Your task to perform on an android device: toggle improve location accuracy Image 0: 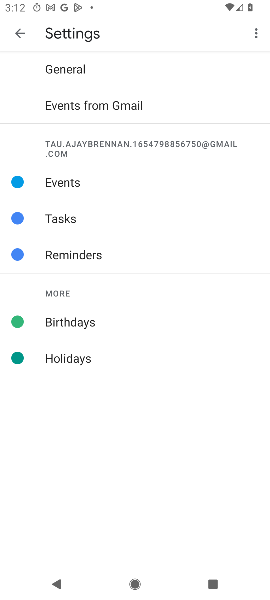
Step 0: press home button
Your task to perform on an android device: toggle improve location accuracy Image 1: 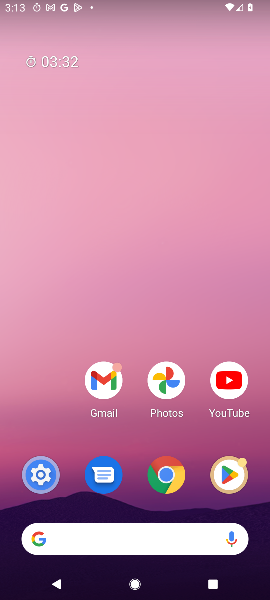
Step 1: drag from (58, 437) to (53, 139)
Your task to perform on an android device: toggle improve location accuracy Image 2: 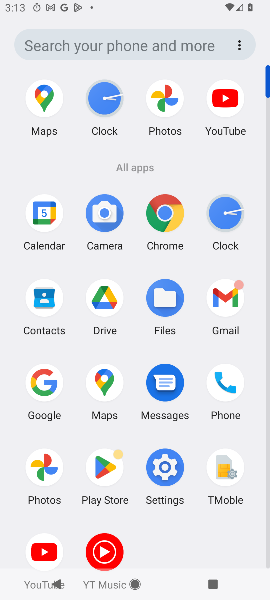
Step 2: click (168, 483)
Your task to perform on an android device: toggle improve location accuracy Image 3: 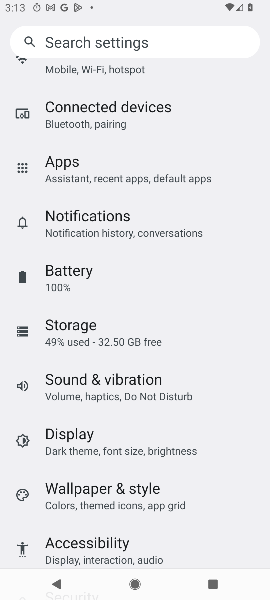
Step 3: drag from (217, 453) to (225, 392)
Your task to perform on an android device: toggle improve location accuracy Image 4: 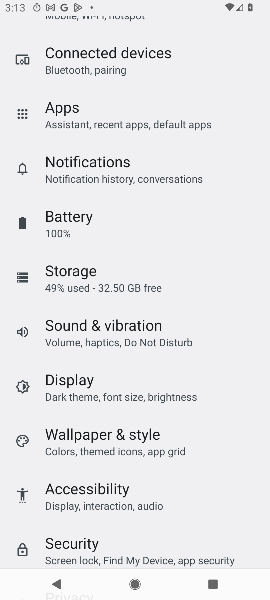
Step 4: drag from (227, 454) to (226, 362)
Your task to perform on an android device: toggle improve location accuracy Image 5: 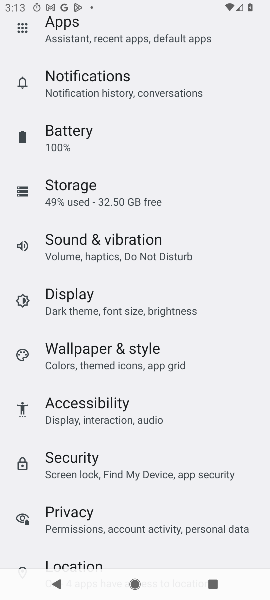
Step 5: drag from (213, 427) to (219, 355)
Your task to perform on an android device: toggle improve location accuracy Image 6: 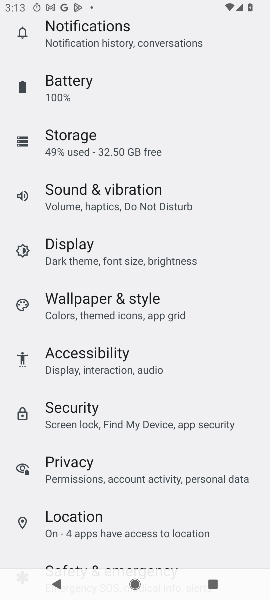
Step 6: drag from (201, 431) to (198, 364)
Your task to perform on an android device: toggle improve location accuracy Image 7: 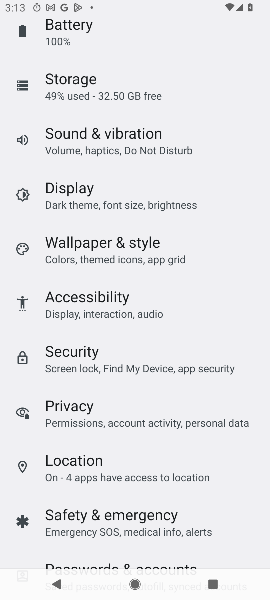
Step 7: drag from (215, 495) to (220, 392)
Your task to perform on an android device: toggle improve location accuracy Image 8: 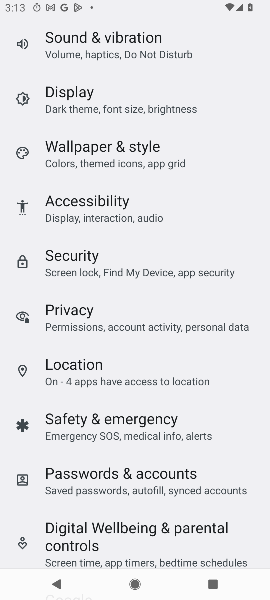
Step 8: click (188, 380)
Your task to perform on an android device: toggle improve location accuracy Image 9: 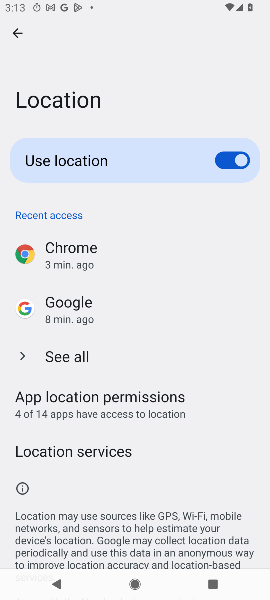
Step 9: click (146, 454)
Your task to perform on an android device: toggle improve location accuracy Image 10: 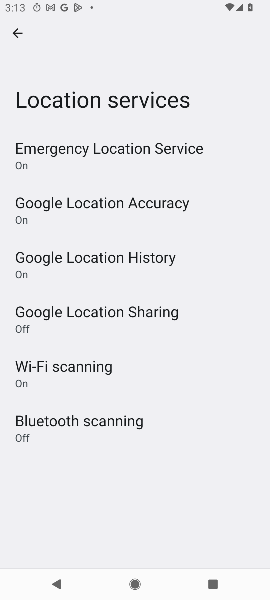
Step 10: click (154, 206)
Your task to perform on an android device: toggle improve location accuracy Image 11: 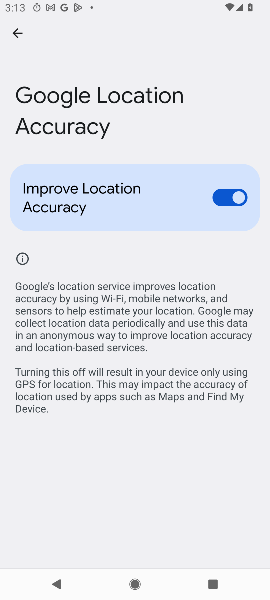
Step 11: click (237, 193)
Your task to perform on an android device: toggle improve location accuracy Image 12: 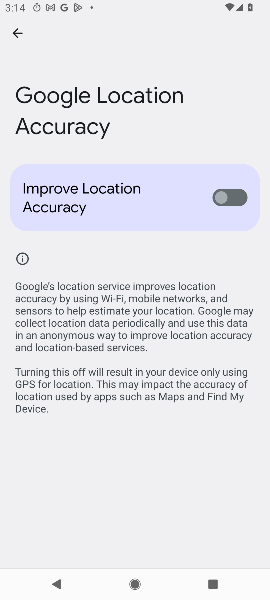
Step 12: task complete